Your task to perform on an android device: Find coffee shops on Maps Image 0: 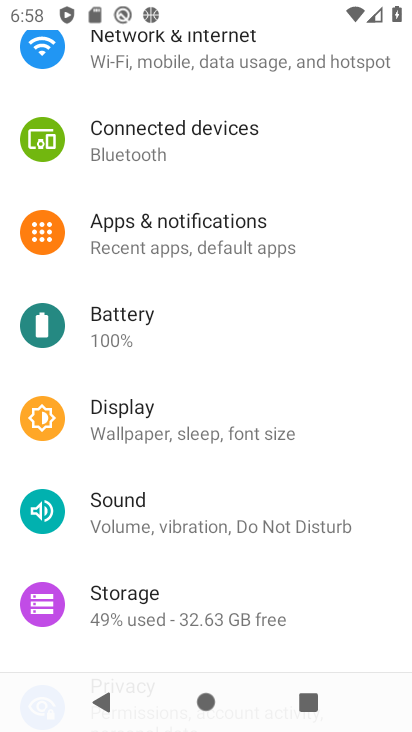
Step 0: press home button
Your task to perform on an android device: Find coffee shops on Maps Image 1: 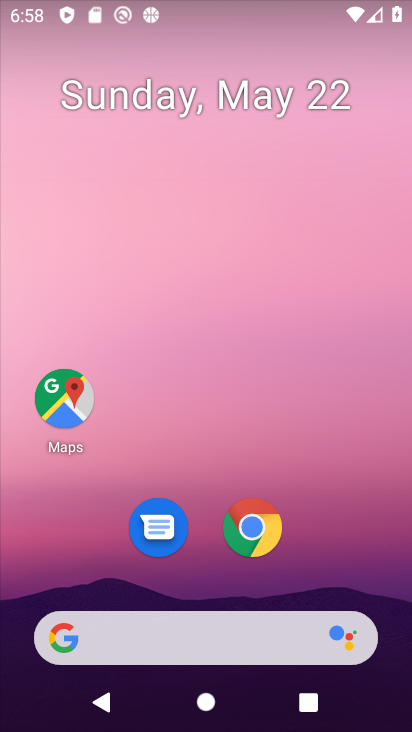
Step 1: drag from (350, 545) to (274, 6)
Your task to perform on an android device: Find coffee shops on Maps Image 2: 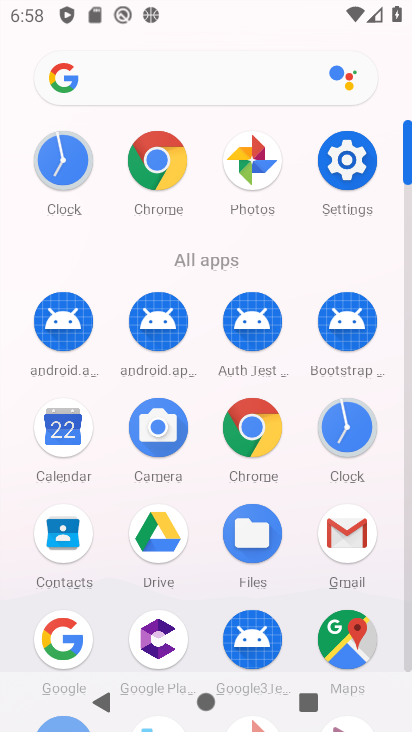
Step 2: click (360, 630)
Your task to perform on an android device: Find coffee shops on Maps Image 3: 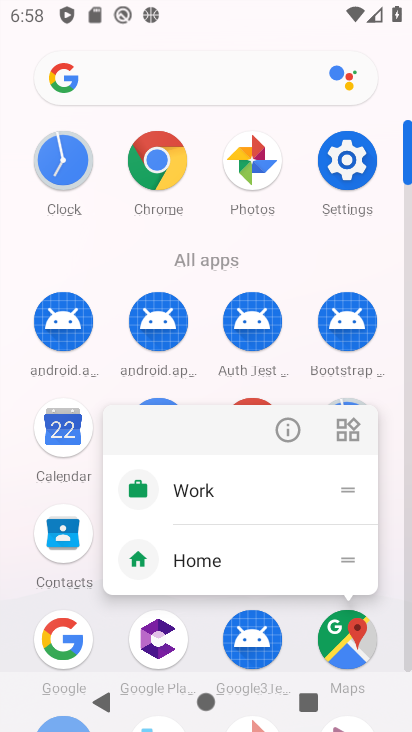
Step 3: click (345, 635)
Your task to perform on an android device: Find coffee shops on Maps Image 4: 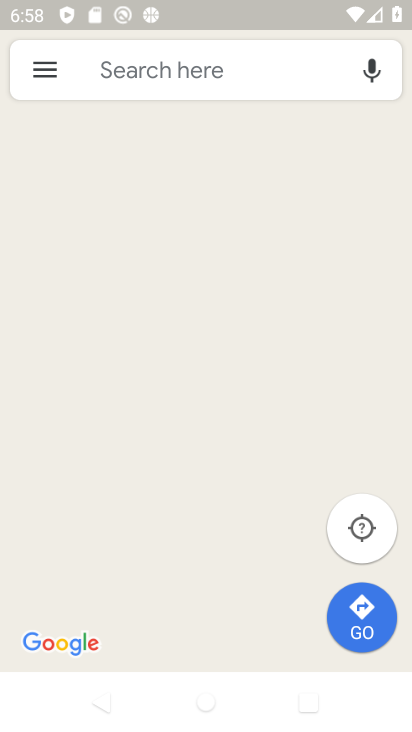
Step 4: click (187, 86)
Your task to perform on an android device: Find coffee shops on Maps Image 5: 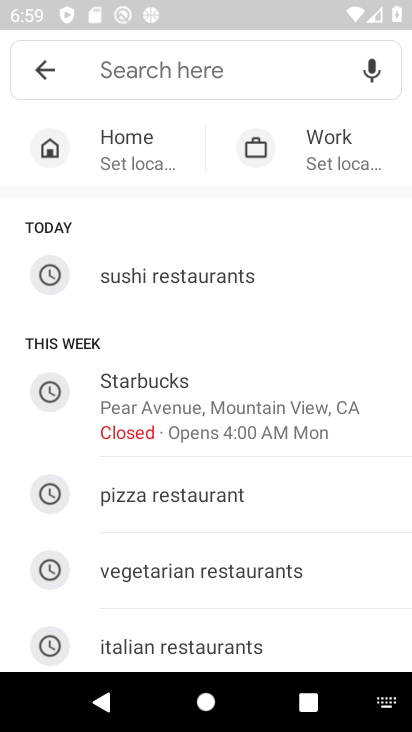
Step 5: type "coffee"
Your task to perform on an android device: Find coffee shops on Maps Image 6: 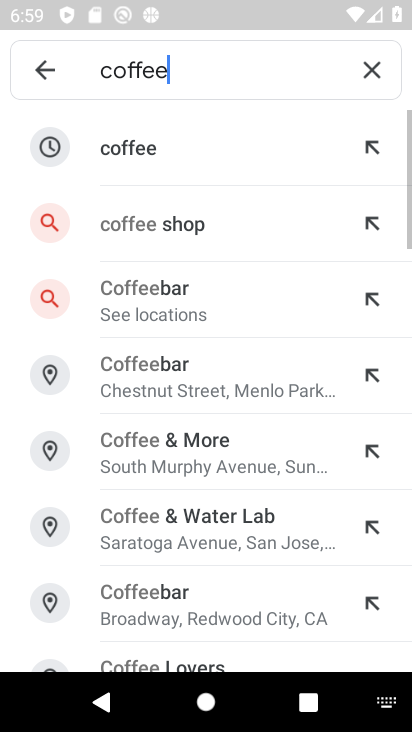
Step 6: click (137, 162)
Your task to perform on an android device: Find coffee shops on Maps Image 7: 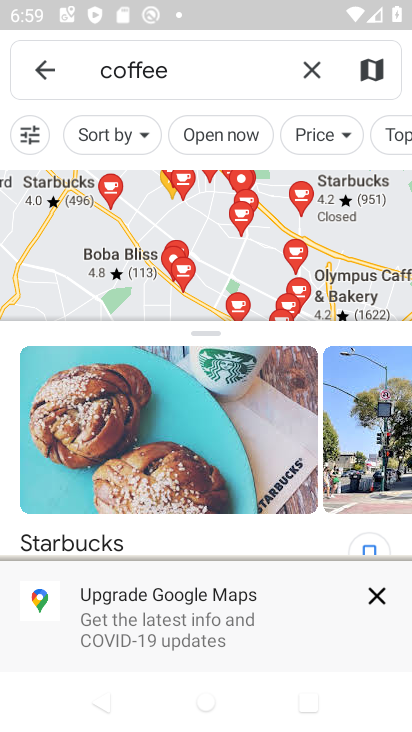
Step 7: task complete